Your task to perform on an android device: Go to calendar. Show me events next week Image 0: 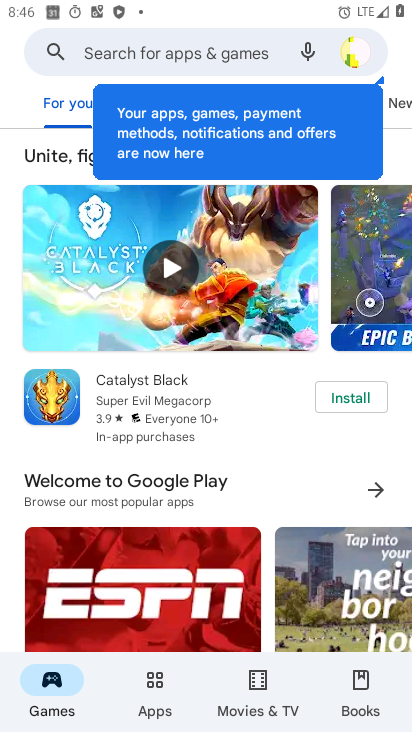
Step 0: press home button
Your task to perform on an android device: Go to calendar. Show me events next week Image 1: 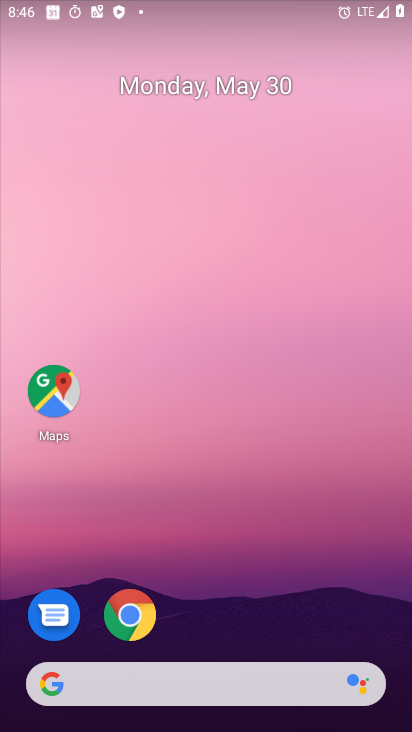
Step 1: drag from (279, 616) to (294, 71)
Your task to perform on an android device: Go to calendar. Show me events next week Image 2: 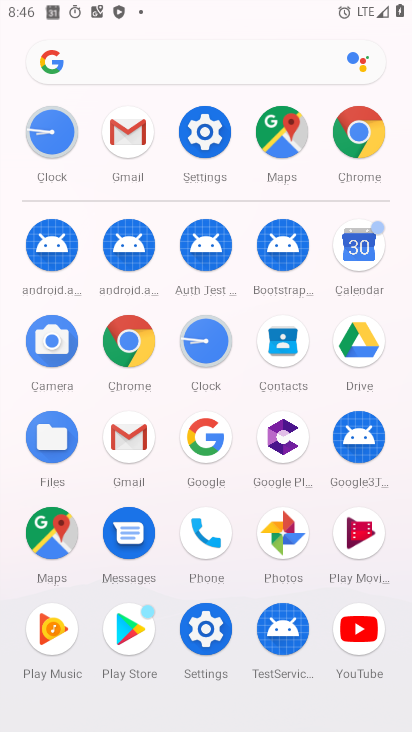
Step 2: click (369, 246)
Your task to perform on an android device: Go to calendar. Show me events next week Image 3: 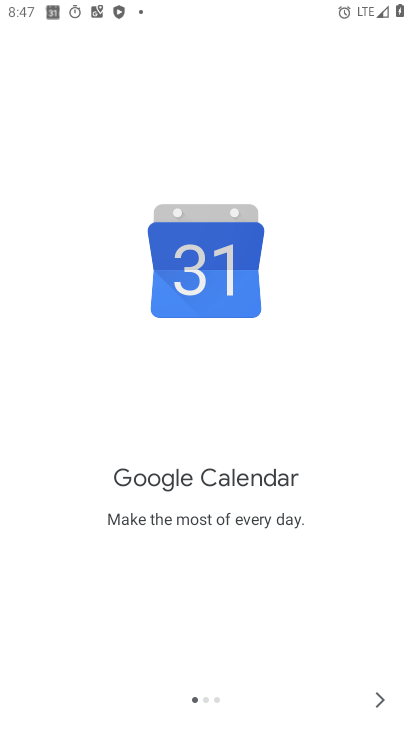
Step 3: click (373, 692)
Your task to perform on an android device: Go to calendar. Show me events next week Image 4: 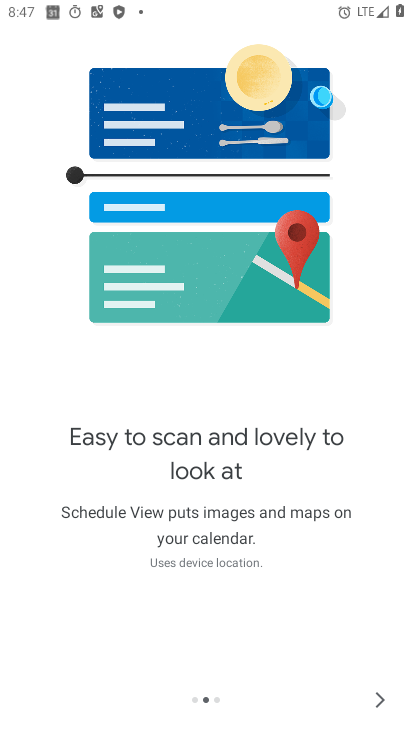
Step 4: click (373, 692)
Your task to perform on an android device: Go to calendar. Show me events next week Image 5: 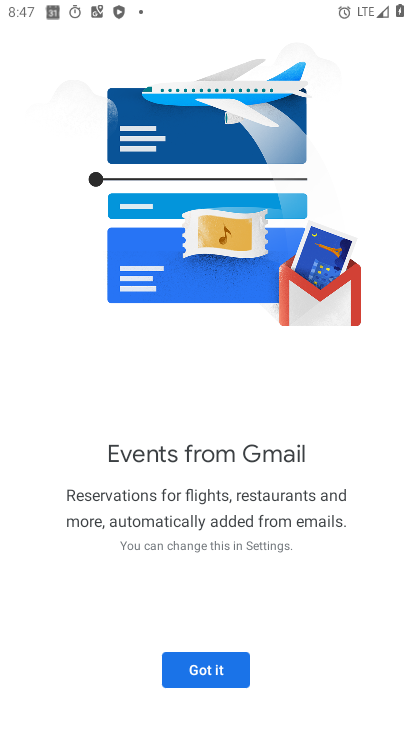
Step 5: click (196, 656)
Your task to perform on an android device: Go to calendar. Show me events next week Image 6: 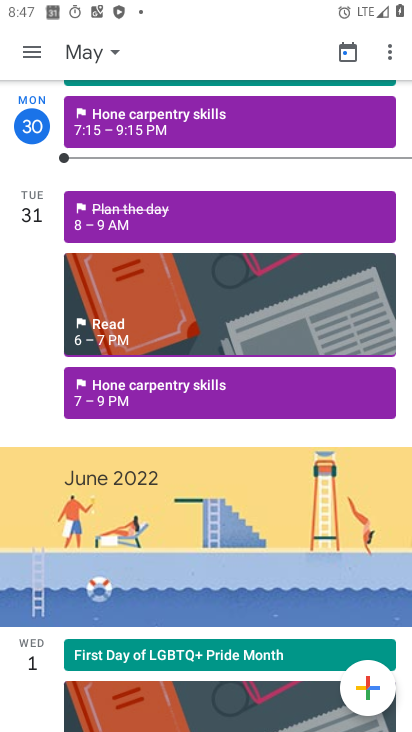
Step 6: click (99, 53)
Your task to perform on an android device: Go to calendar. Show me events next week Image 7: 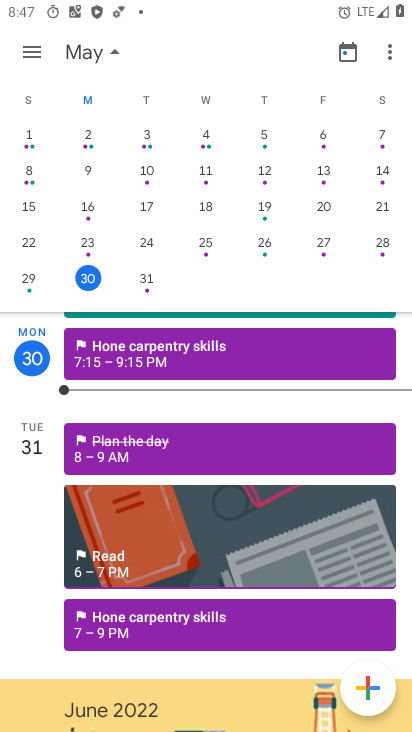
Step 7: drag from (329, 297) to (22, 370)
Your task to perform on an android device: Go to calendar. Show me events next week Image 8: 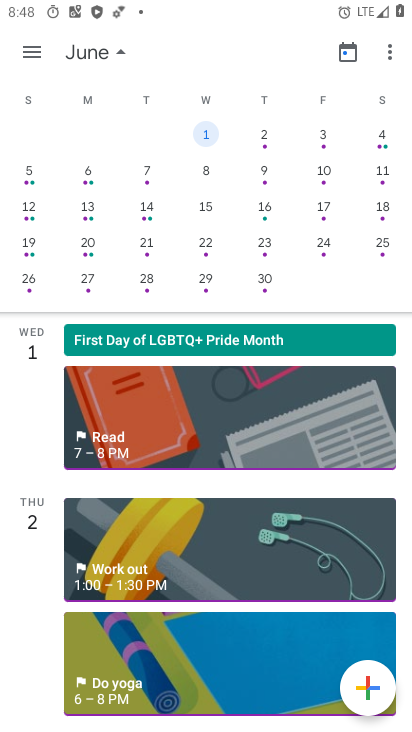
Step 8: click (378, 137)
Your task to perform on an android device: Go to calendar. Show me events next week Image 9: 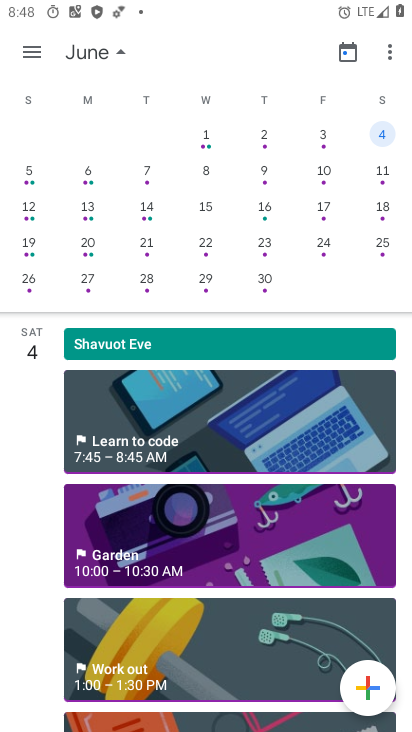
Step 9: task complete